Your task to perform on an android device: Open wifi settings Image 0: 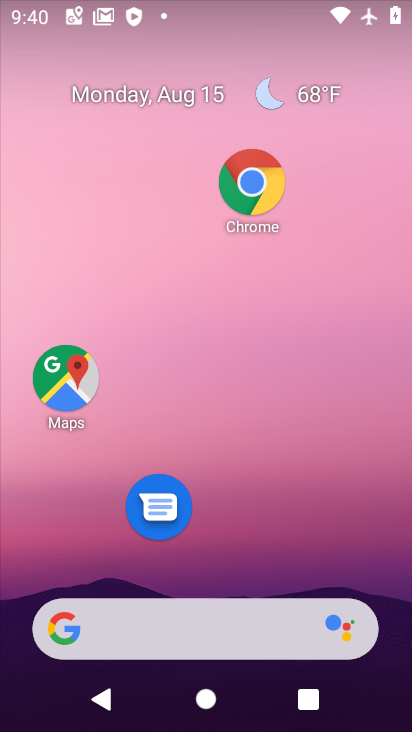
Step 0: drag from (261, 555) to (363, 28)
Your task to perform on an android device: Open wifi settings Image 1: 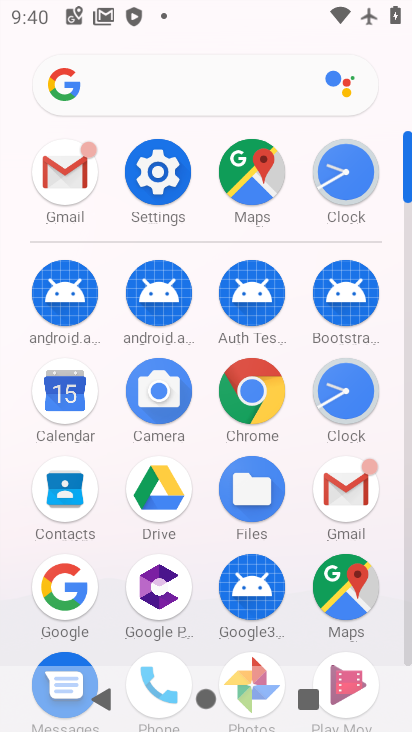
Step 1: click (160, 182)
Your task to perform on an android device: Open wifi settings Image 2: 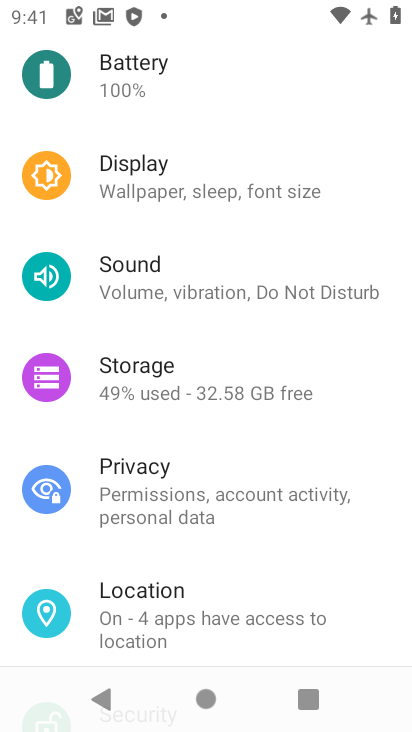
Step 2: drag from (237, 131) to (187, 652)
Your task to perform on an android device: Open wifi settings Image 3: 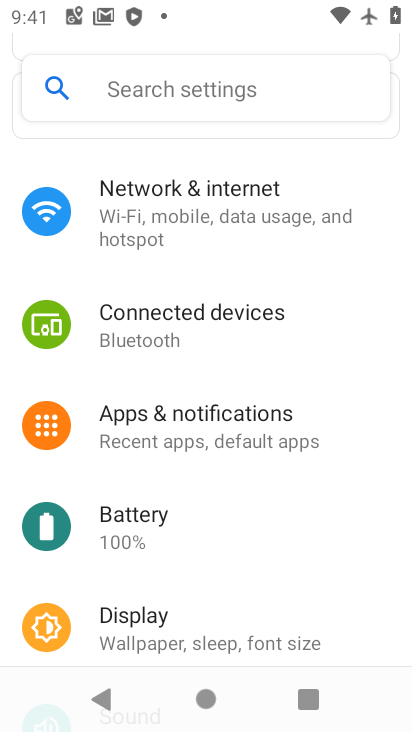
Step 3: click (213, 216)
Your task to perform on an android device: Open wifi settings Image 4: 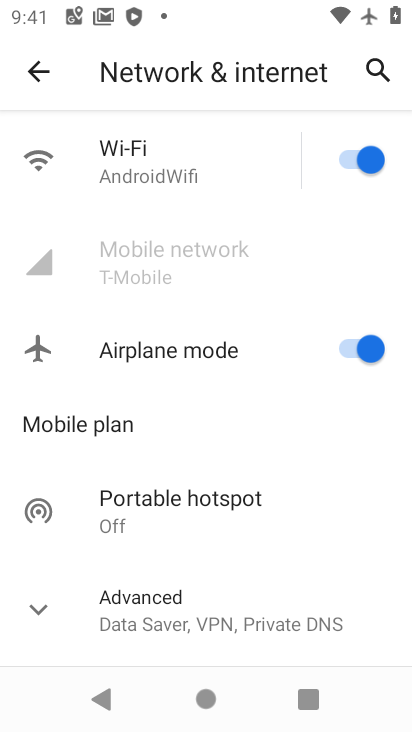
Step 4: task complete